Your task to perform on an android device: Open location settings Image 0: 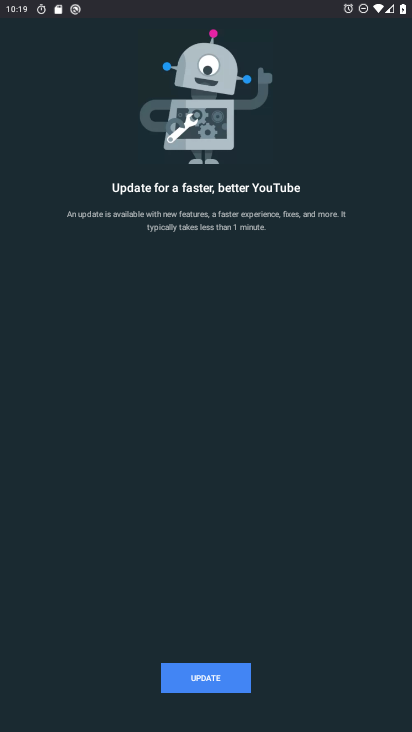
Step 0: press home button
Your task to perform on an android device: Open location settings Image 1: 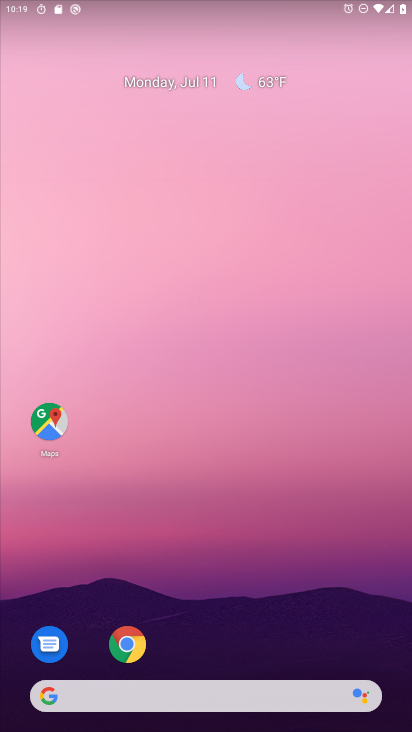
Step 1: drag from (335, 601) to (291, 148)
Your task to perform on an android device: Open location settings Image 2: 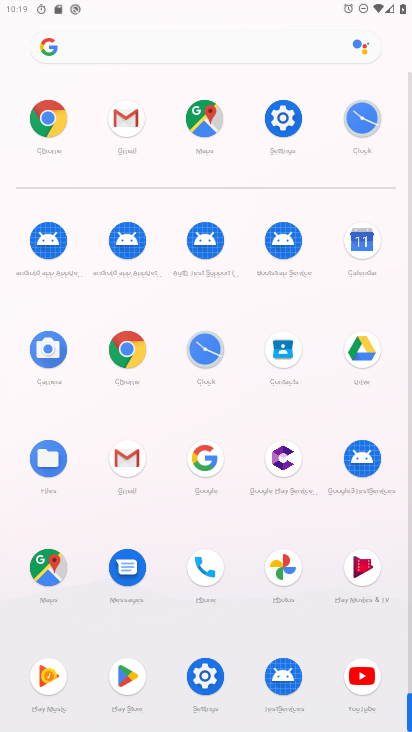
Step 2: click (288, 112)
Your task to perform on an android device: Open location settings Image 3: 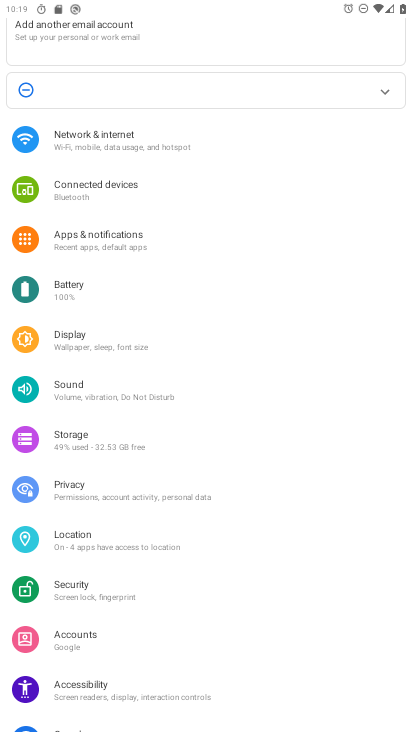
Step 3: click (88, 534)
Your task to perform on an android device: Open location settings Image 4: 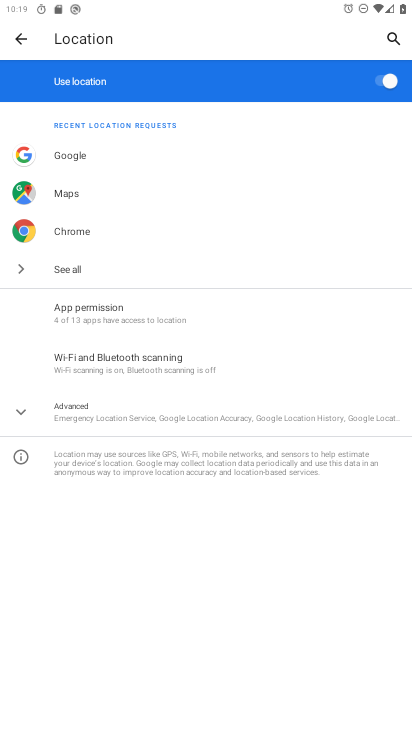
Step 4: task complete